Your task to perform on an android device: What is the recent news? Image 0: 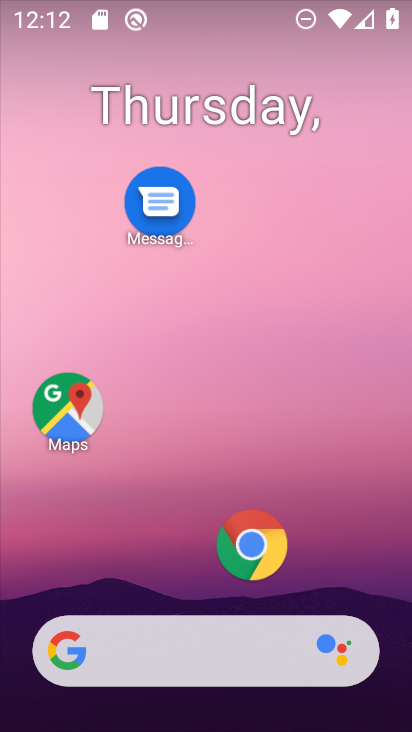
Step 0: drag from (159, 598) to (227, 289)
Your task to perform on an android device: What is the recent news? Image 1: 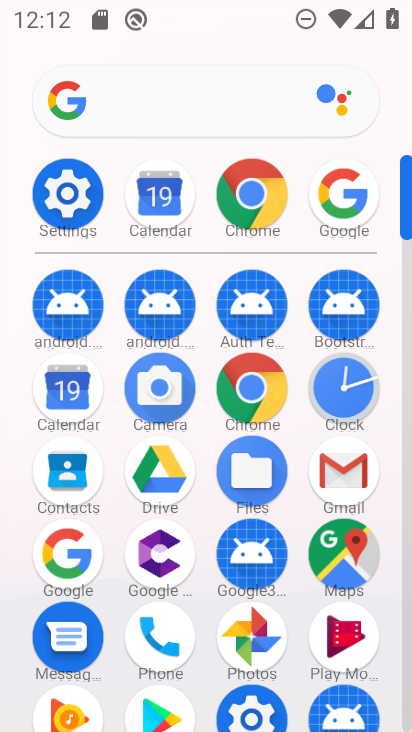
Step 1: click (55, 570)
Your task to perform on an android device: What is the recent news? Image 2: 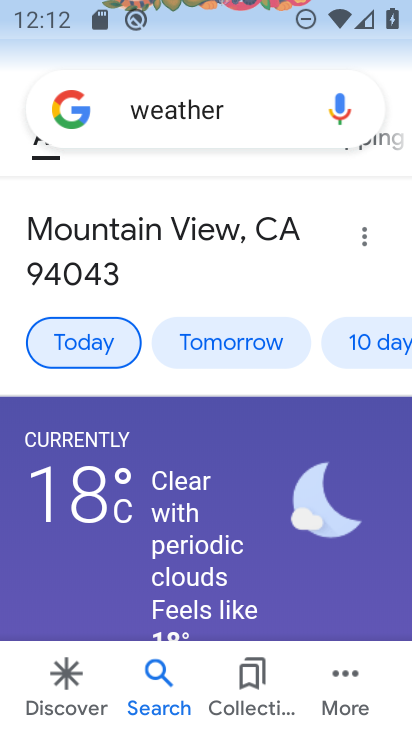
Step 2: click (241, 114)
Your task to perform on an android device: What is the recent news? Image 3: 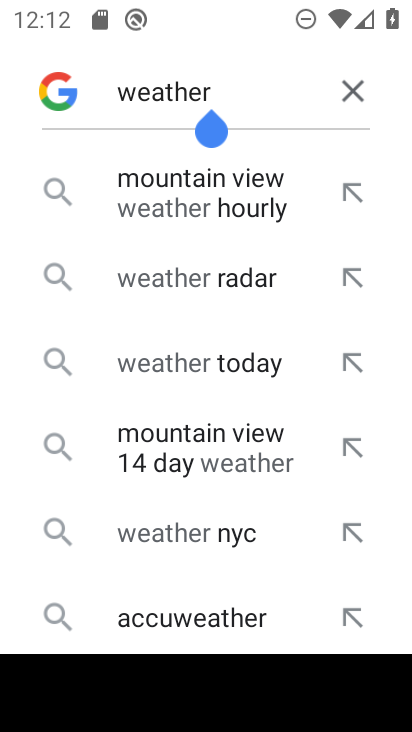
Step 3: click (356, 91)
Your task to perform on an android device: What is the recent news? Image 4: 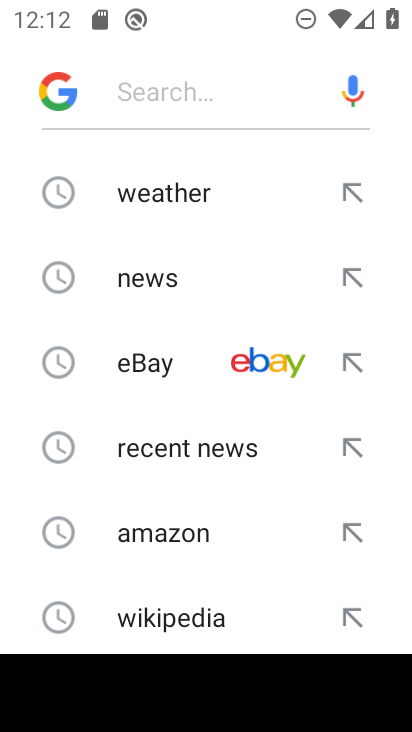
Step 4: click (185, 267)
Your task to perform on an android device: What is the recent news? Image 5: 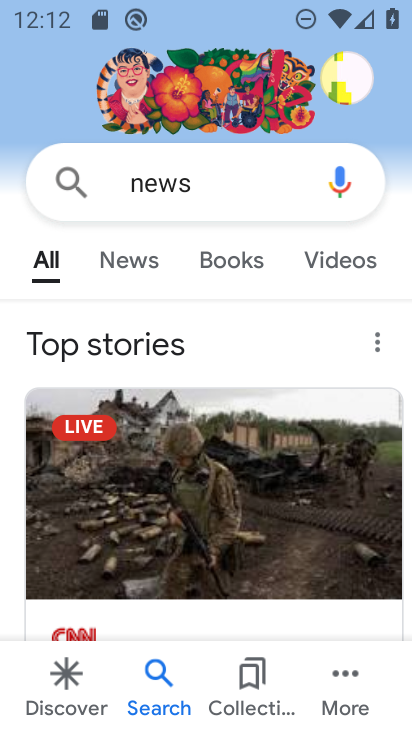
Step 5: click (154, 260)
Your task to perform on an android device: What is the recent news? Image 6: 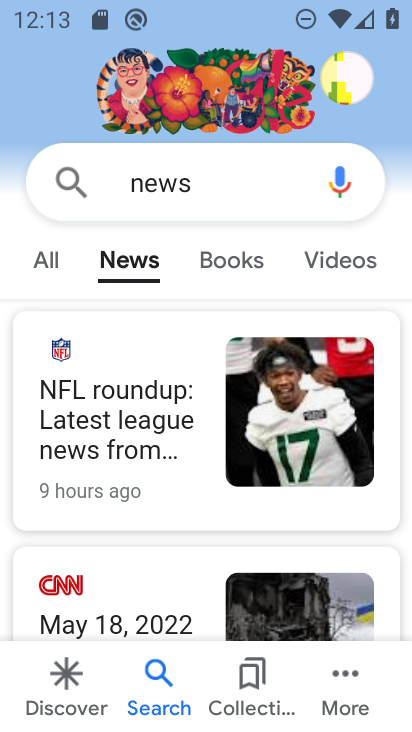
Step 6: task complete